Your task to perform on an android device: see creations saved in the google photos Image 0: 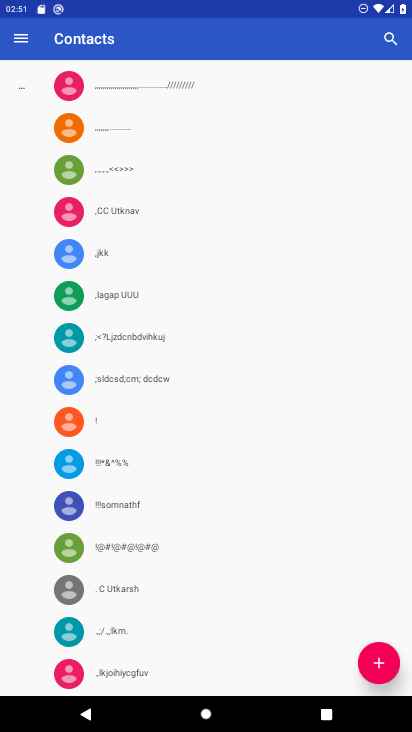
Step 0: press home button
Your task to perform on an android device: see creations saved in the google photos Image 1: 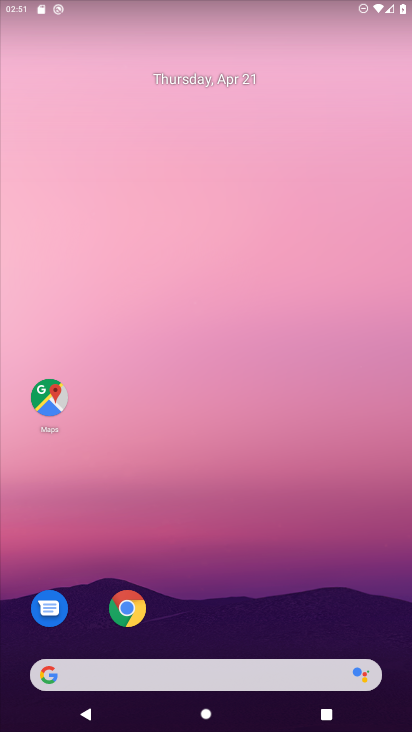
Step 1: drag from (213, 507) to (270, 181)
Your task to perform on an android device: see creations saved in the google photos Image 2: 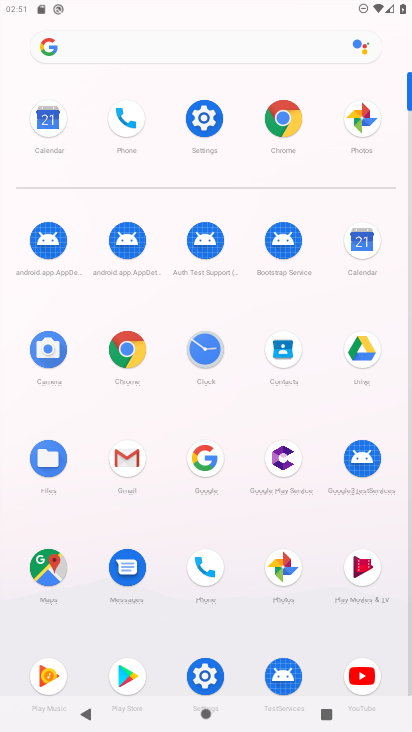
Step 2: click (274, 561)
Your task to perform on an android device: see creations saved in the google photos Image 3: 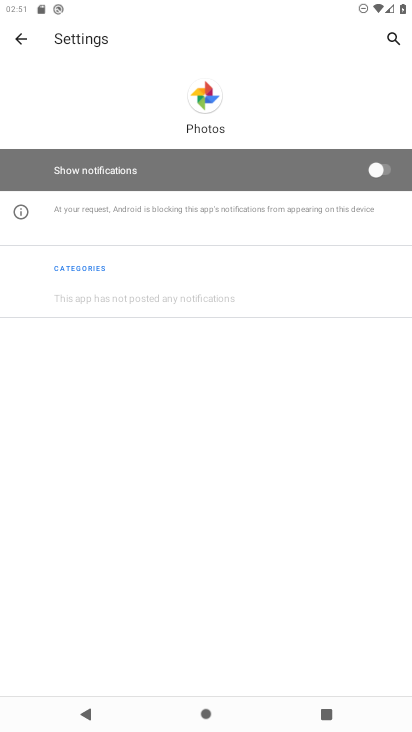
Step 3: click (28, 38)
Your task to perform on an android device: see creations saved in the google photos Image 4: 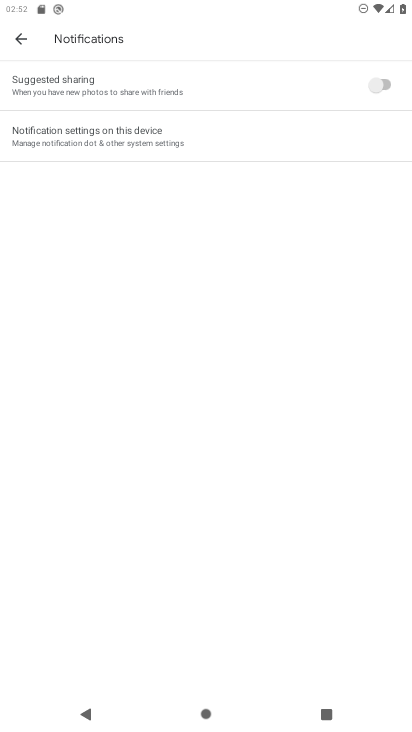
Step 4: click (12, 40)
Your task to perform on an android device: see creations saved in the google photos Image 5: 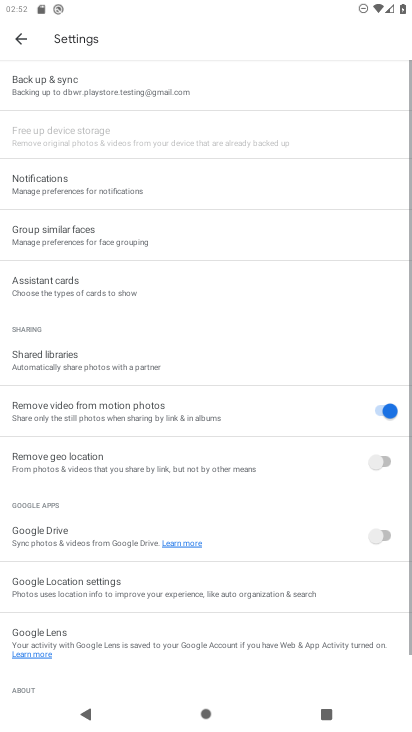
Step 5: click (20, 34)
Your task to perform on an android device: see creations saved in the google photos Image 6: 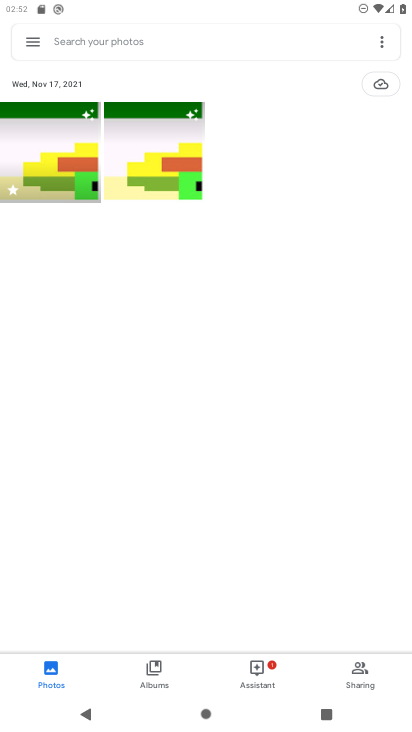
Step 6: click (47, 170)
Your task to perform on an android device: see creations saved in the google photos Image 7: 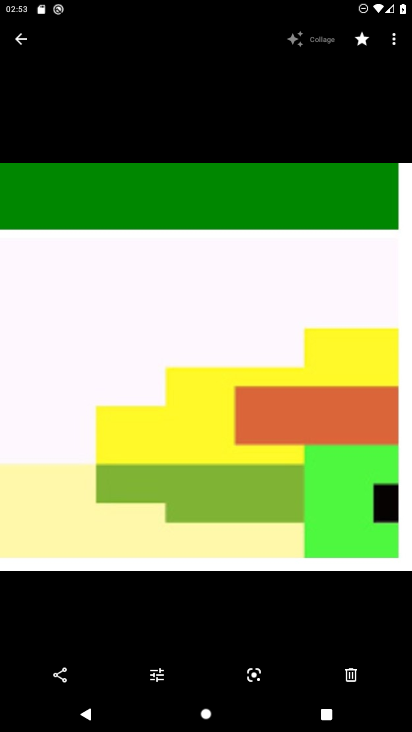
Step 7: task complete